Your task to perform on an android device: Go to settings Image 0: 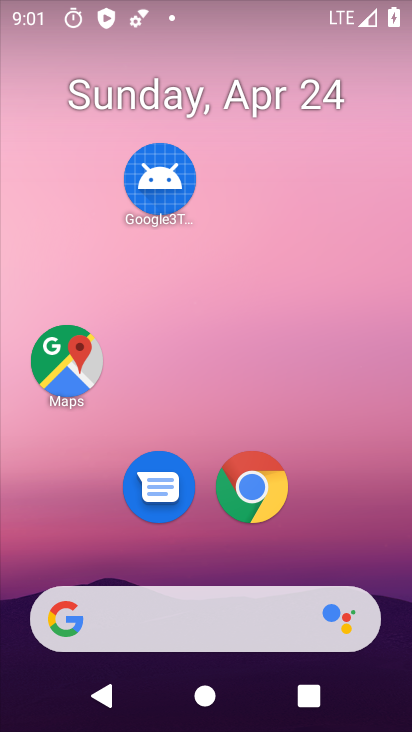
Step 0: drag from (312, 481) to (294, 117)
Your task to perform on an android device: Go to settings Image 1: 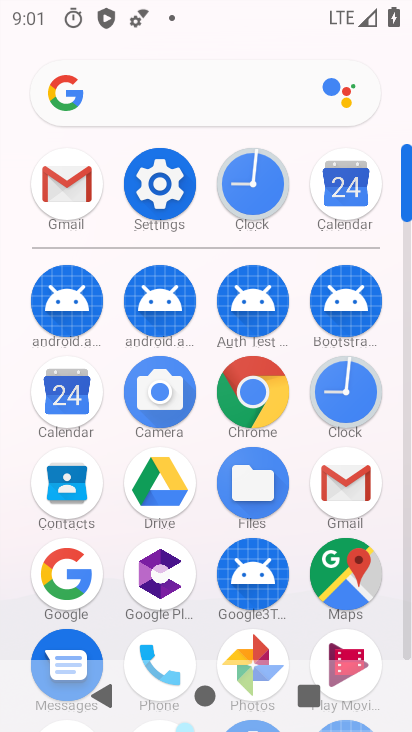
Step 1: click (158, 171)
Your task to perform on an android device: Go to settings Image 2: 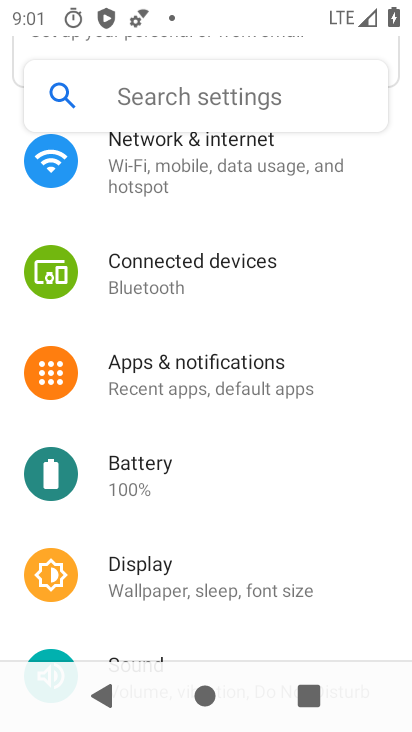
Step 2: task complete